Your task to perform on an android device: Go to Wikipedia Image 0: 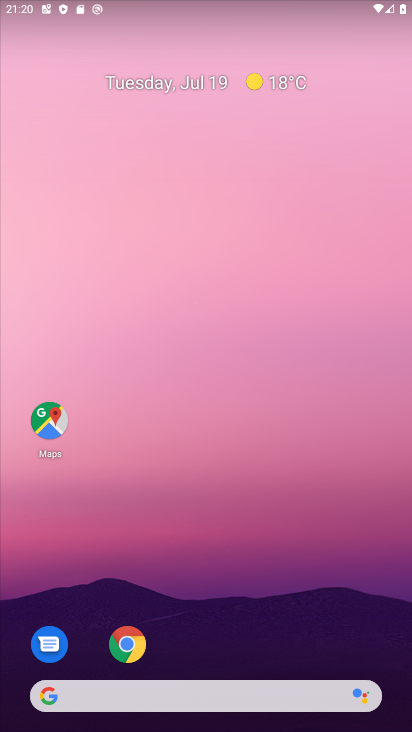
Step 0: click (132, 639)
Your task to perform on an android device: Go to Wikipedia Image 1: 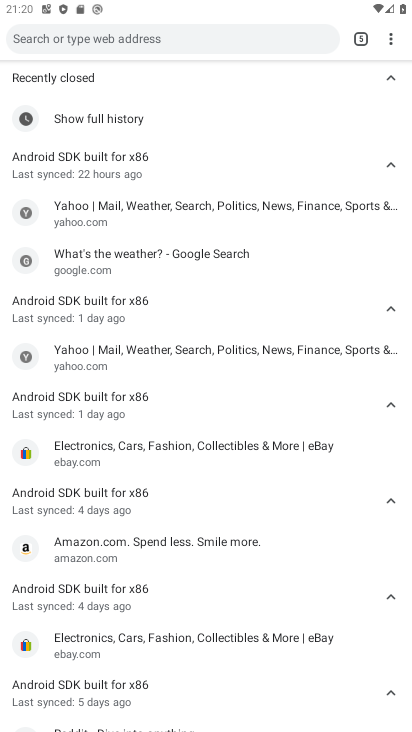
Step 1: click (392, 44)
Your task to perform on an android device: Go to Wikipedia Image 2: 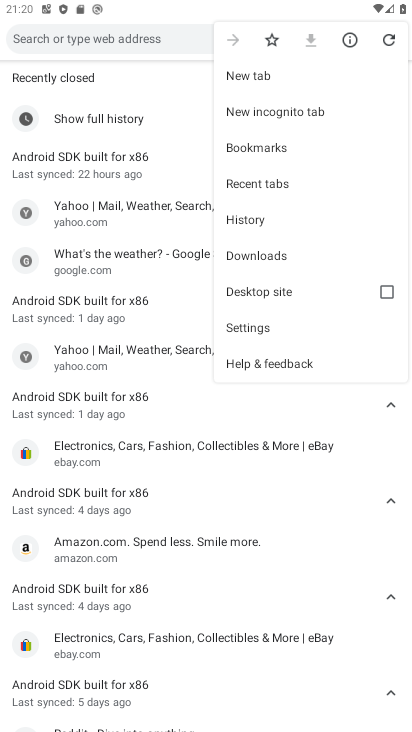
Step 2: click (239, 70)
Your task to perform on an android device: Go to Wikipedia Image 3: 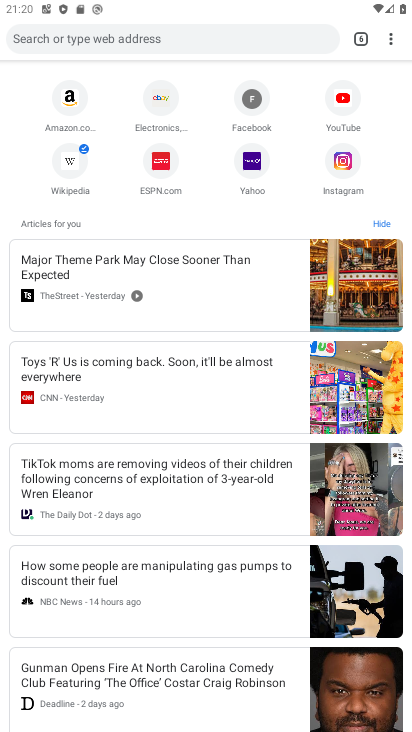
Step 3: click (75, 161)
Your task to perform on an android device: Go to Wikipedia Image 4: 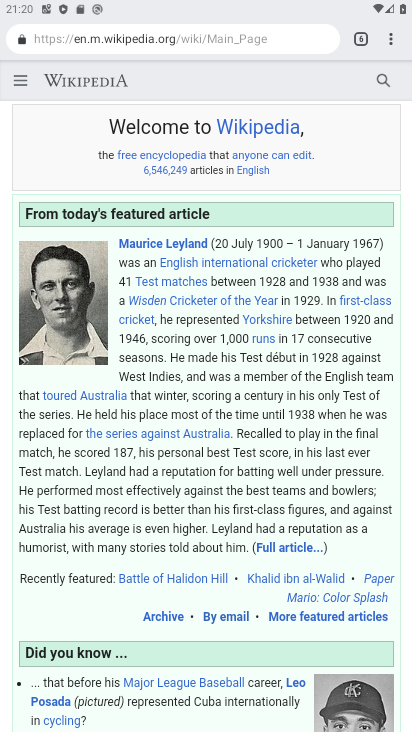
Step 4: task complete